Your task to perform on an android device: View the shopping cart on target. Search for razer deathadder on target, select the first entry, add it to the cart, then select checkout. Image 0: 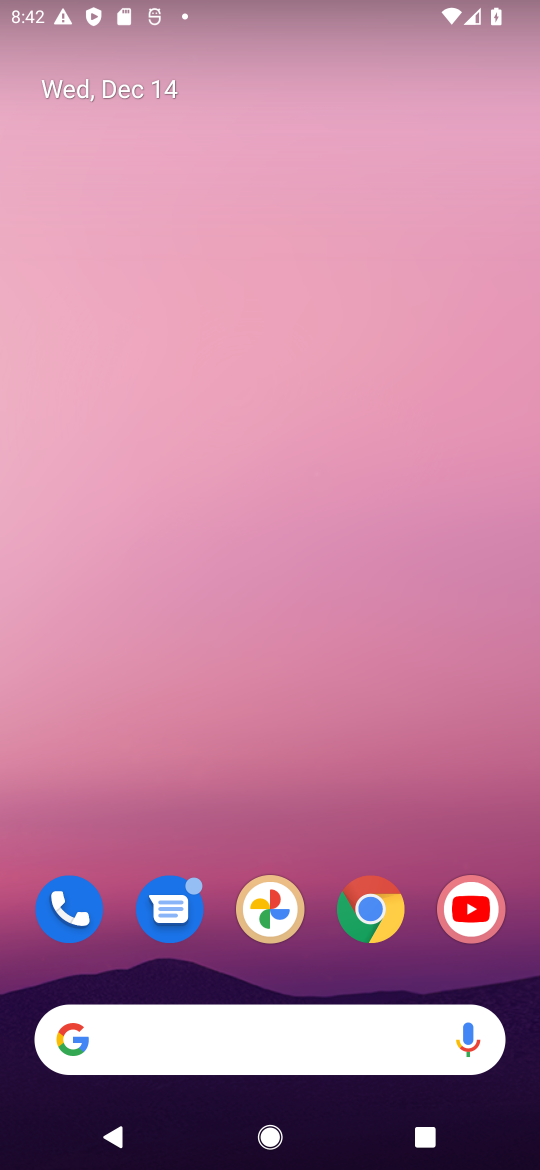
Step 0: click (376, 904)
Your task to perform on an android device: View the shopping cart on target. Search for razer deathadder on target, select the first entry, add it to the cart, then select checkout. Image 1: 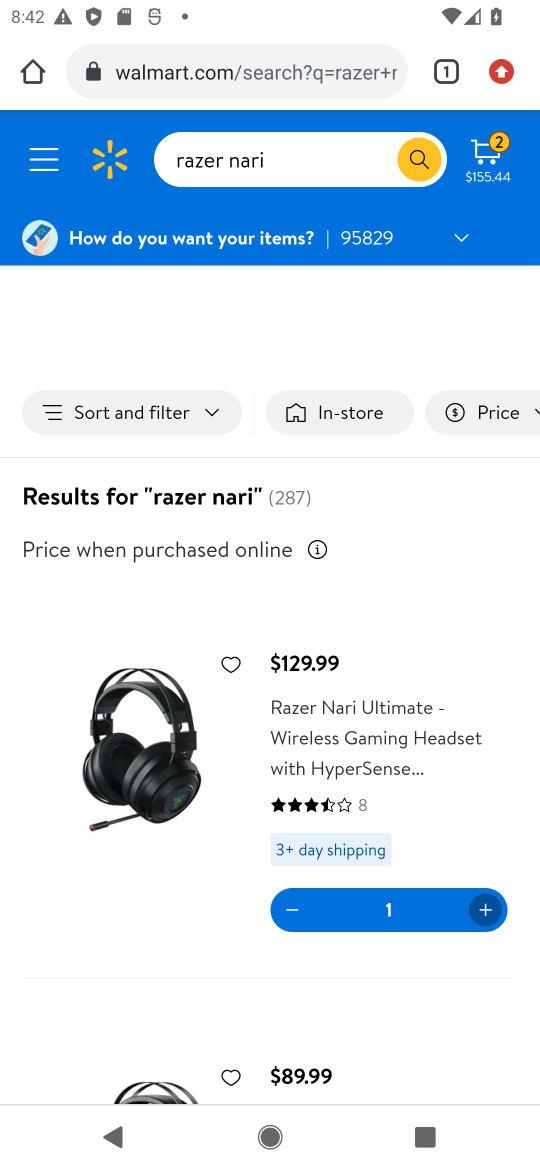
Step 1: click (229, 76)
Your task to perform on an android device: View the shopping cart on target. Search for razer deathadder on target, select the first entry, add it to the cart, then select checkout. Image 2: 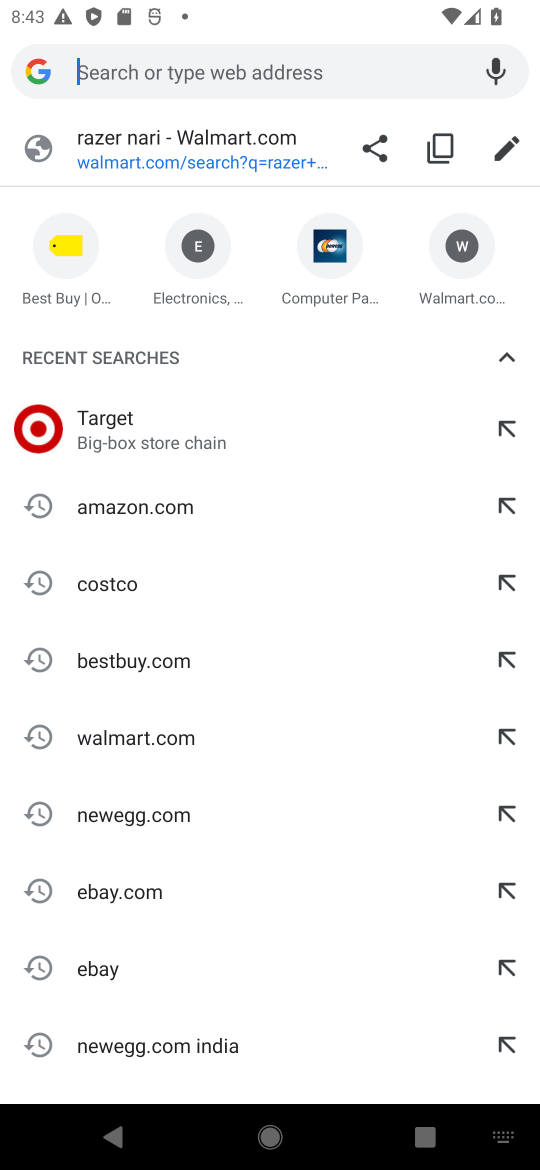
Step 2: type "target."
Your task to perform on an android device: View the shopping cart on target. Search for razer deathadder on target, select the first entry, add it to the cart, then select checkout. Image 3: 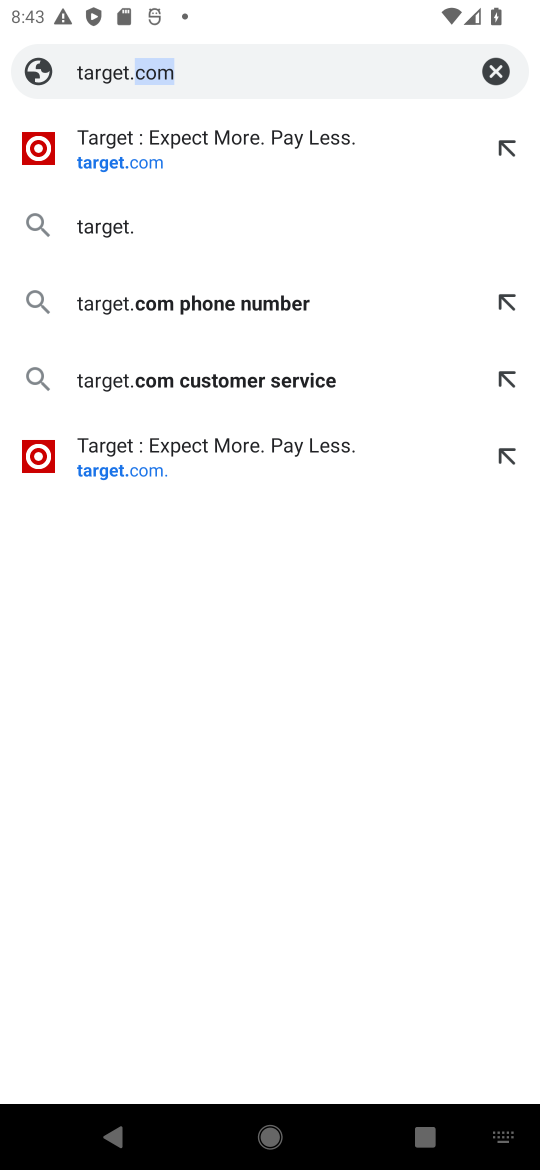
Step 3: click (132, 473)
Your task to perform on an android device: View the shopping cart on target. Search for razer deathadder on target, select the first entry, add it to the cart, then select checkout. Image 4: 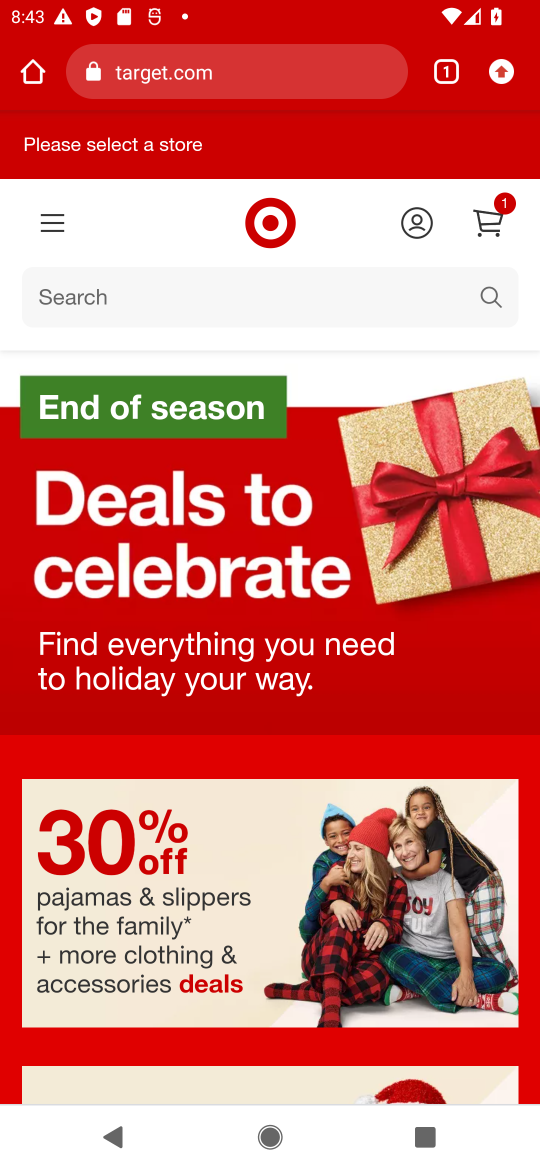
Step 4: click (488, 240)
Your task to perform on an android device: View the shopping cart on target. Search for razer deathadder on target, select the first entry, add it to the cart, then select checkout. Image 5: 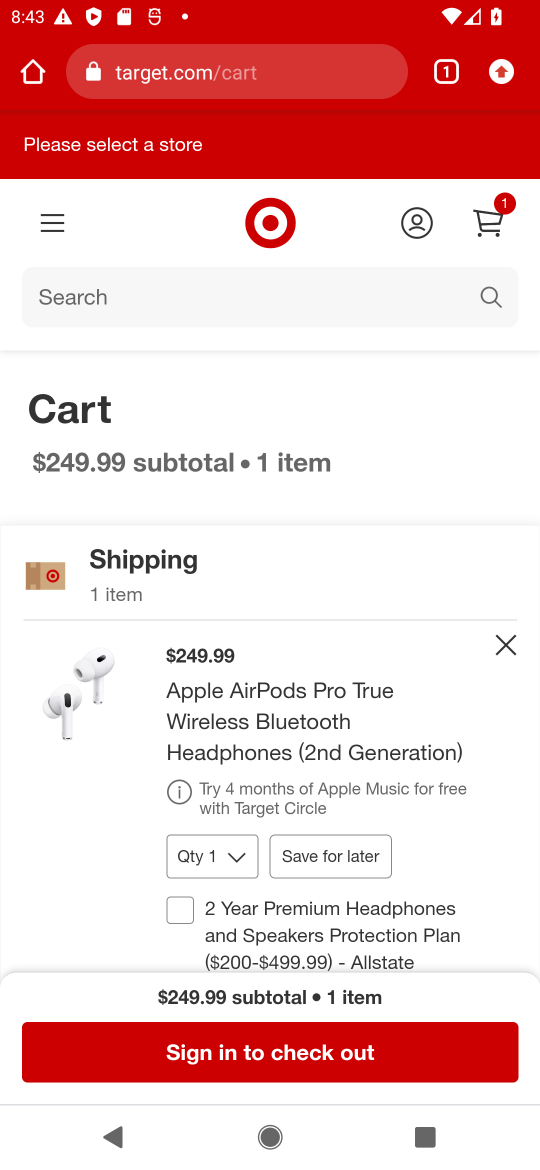
Step 5: click (170, 318)
Your task to perform on an android device: View the shopping cart on target. Search for razer deathadder on target, select the first entry, add it to the cart, then select checkout. Image 6: 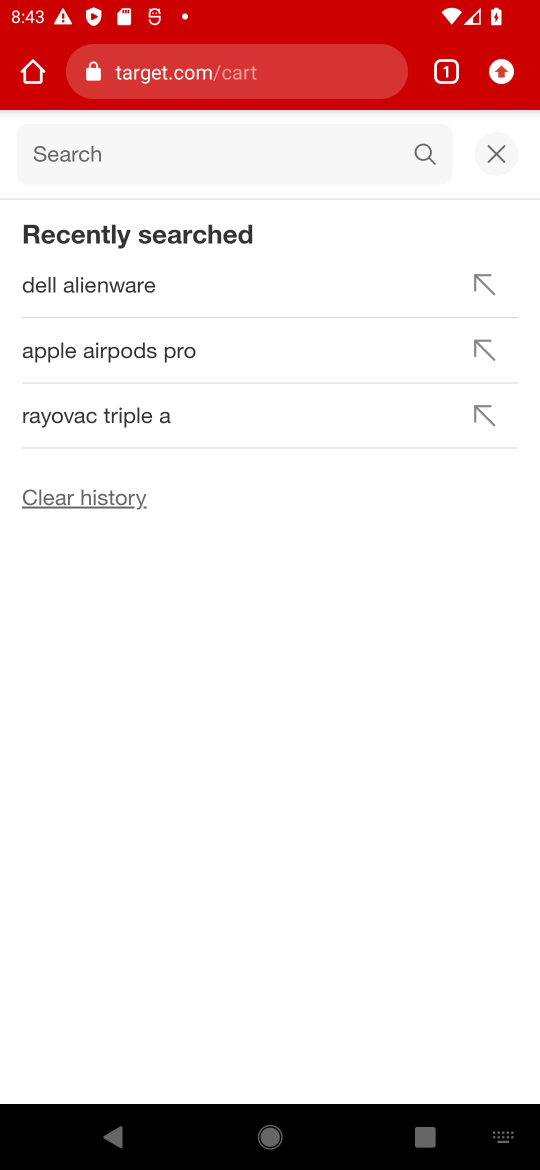
Step 6: type "razer deathadder"
Your task to perform on an android device: View the shopping cart on target. Search for razer deathadder on target, select the first entry, add it to the cart, then select checkout. Image 7: 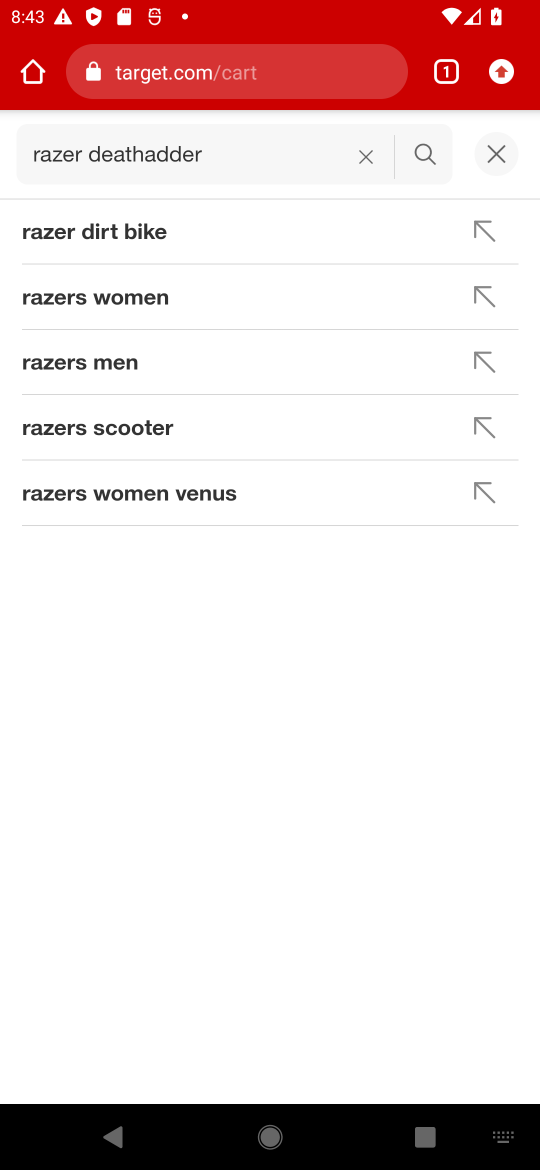
Step 7: press enter
Your task to perform on an android device: View the shopping cart on target. Search for razer deathadder on target, select the first entry, add it to the cart, then select checkout. Image 8: 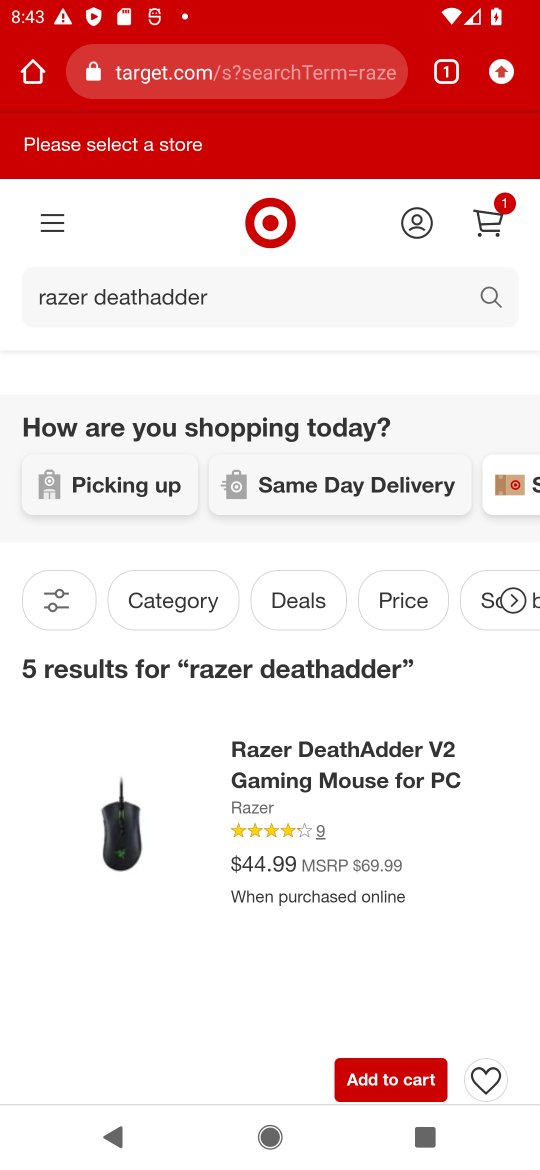
Step 8: click (394, 1074)
Your task to perform on an android device: View the shopping cart on target. Search for razer deathadder on target, select the first entry, add it to the cart, then select checkout. Image 9: 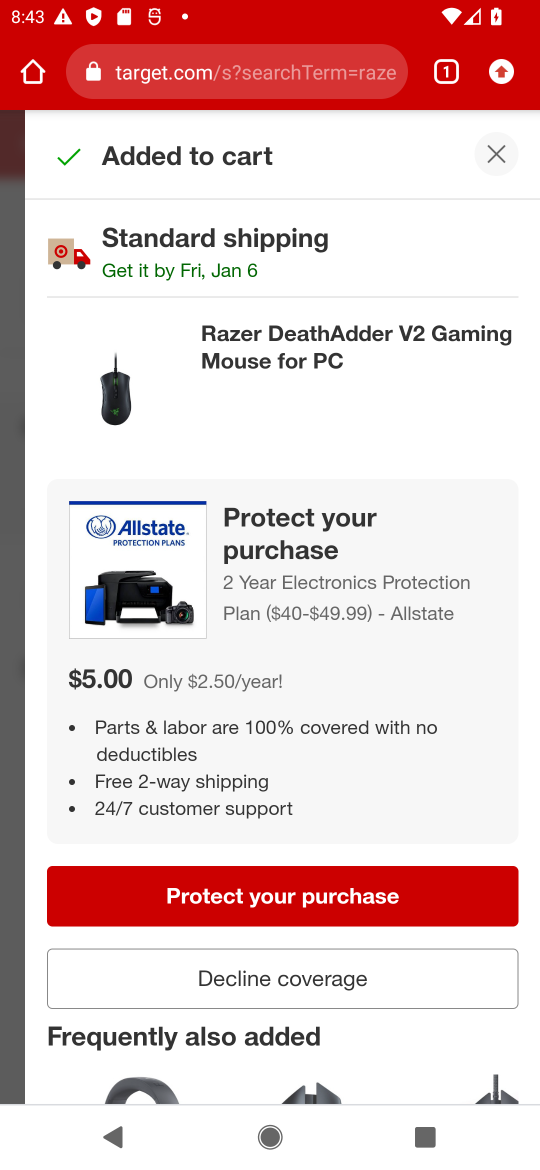
Step 9: click (309, 904)
Your task to perform on an android device: View the shopping cart on target. Search for razer deathadder on target, select the first entry, add it to the cart, then select checkout. Image 10: 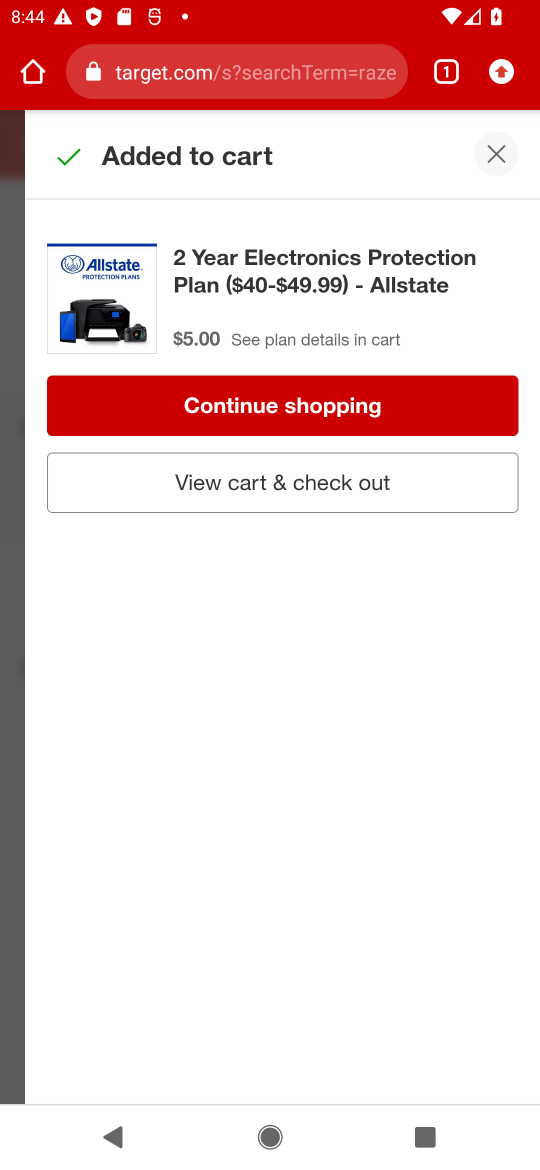
Step 10: click (256, 494)
Your task to perform on an android device: View the shopping cart on target. Search for razer deathadder on target, select the first entry, add it to the cart, then select checkout. Image 11: 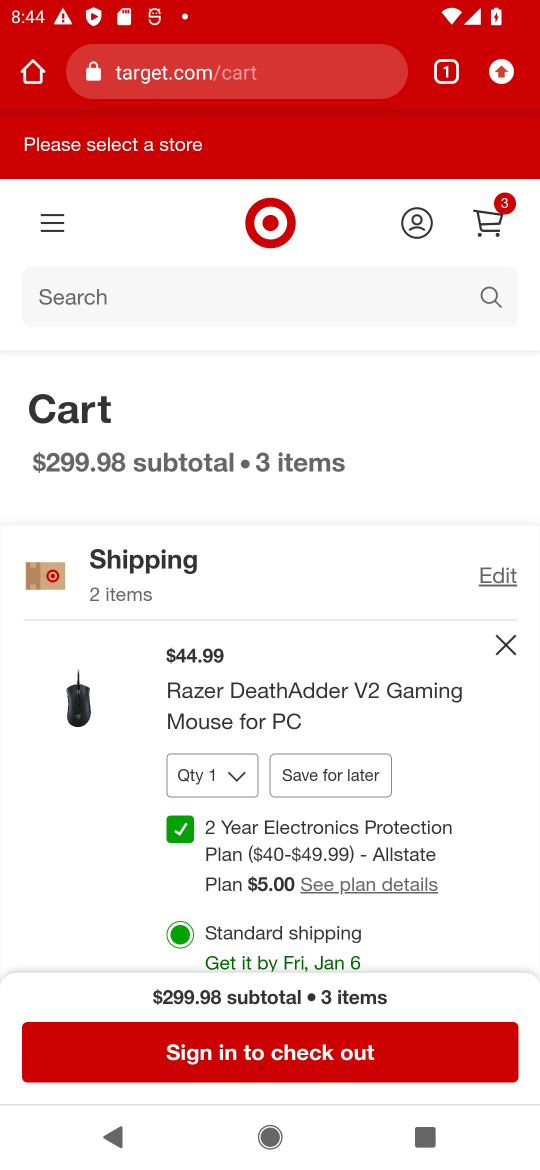
Step 11: click (254, 1054)
Your task to perform on an android device: View the shopping cart on target. Search for razer deathadder on target, select the first entry, add it to the cart, then select checkout. Image 12: 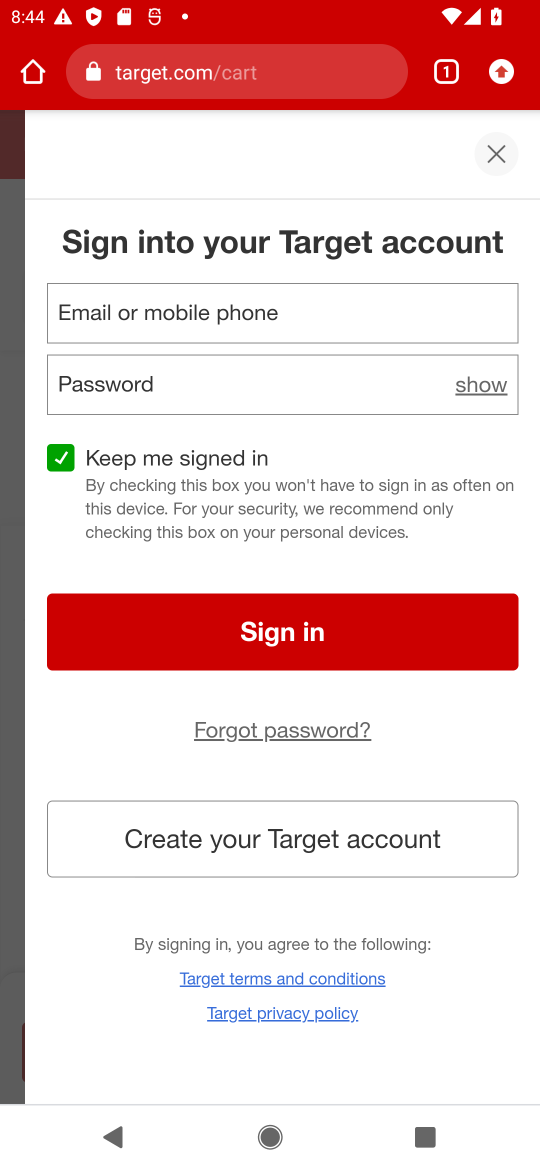
Step 12: task complete